Your task to perform on an android device: Open notification settings Image 0: 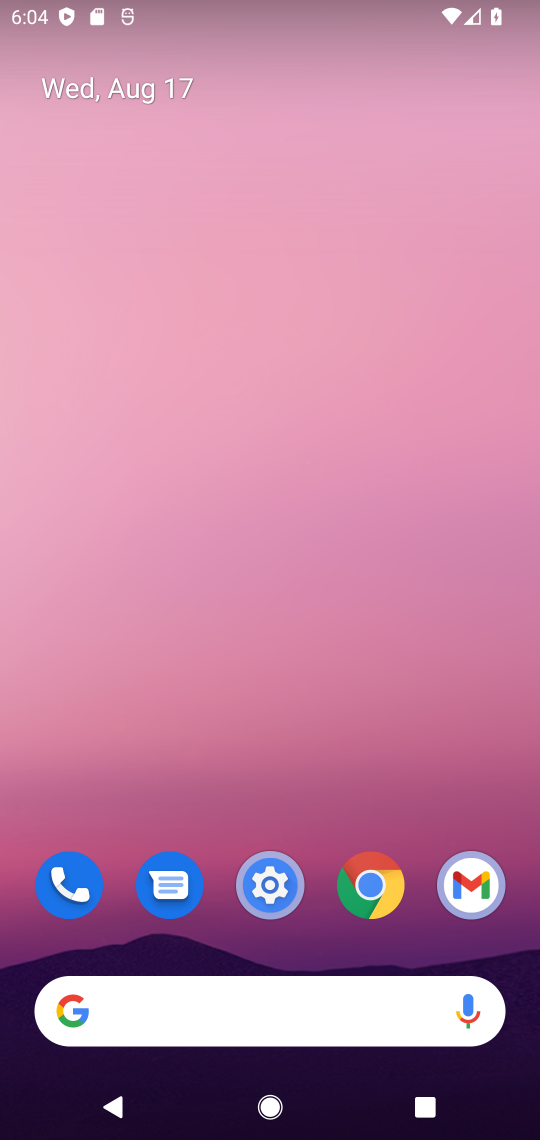
Step 0: drag from (198, 406) to (243, 4)
Your task to perform on an android device: Open notification settings Image 1: 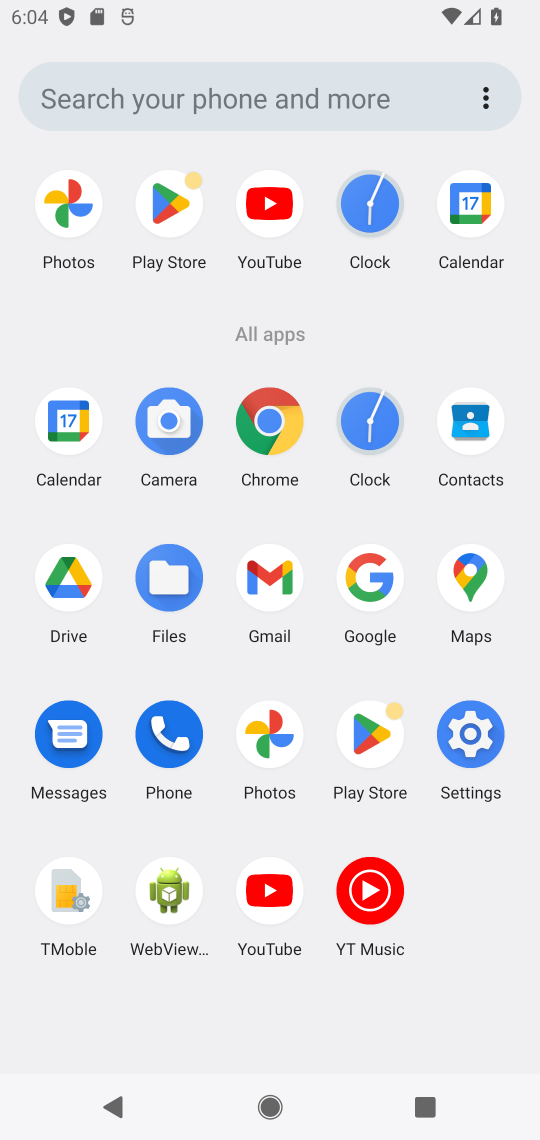
Step 1: click (462, 728)
Your task to perform on an android device: Open notification settings Image 2: 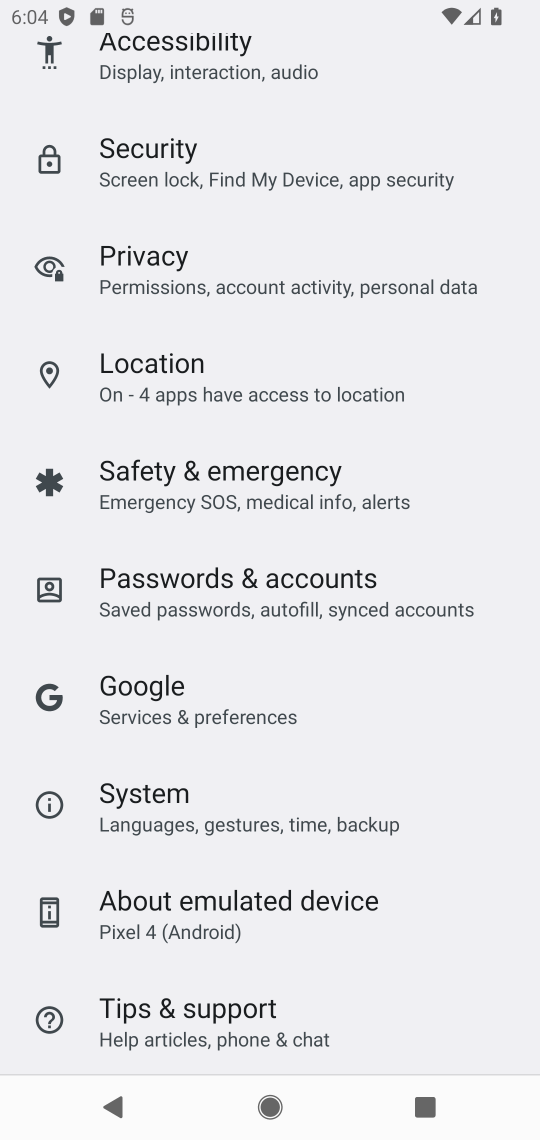
Step 2: drag from (265, 217) to (228, 1027)
Your task to perform on an android device: Open notification settings Image 3: 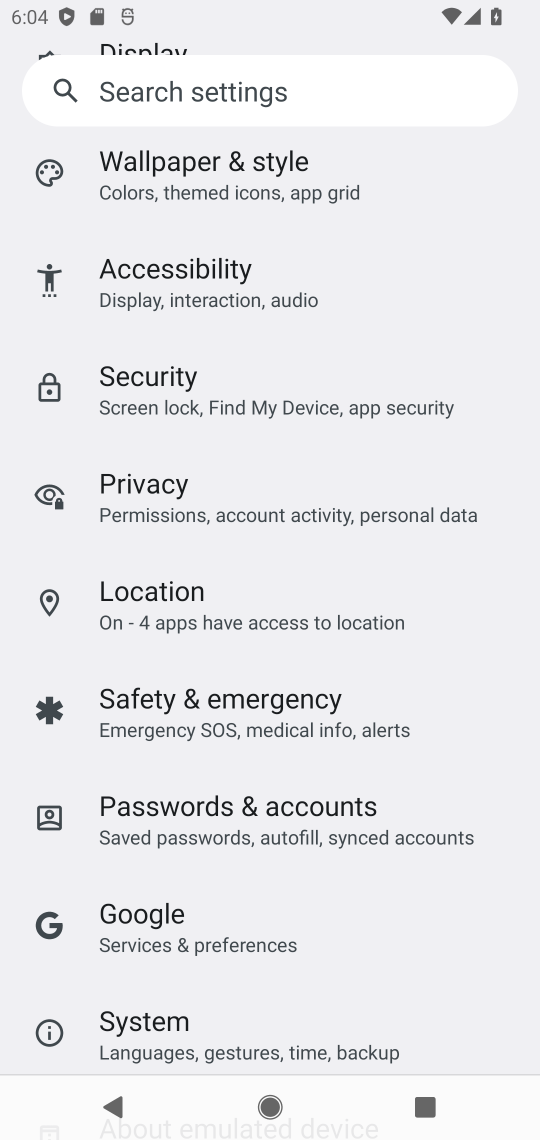
Step 3: drag from (274, 921) to (299, 1017)
Your task to perform on an android device: Open notification settings Image 4: 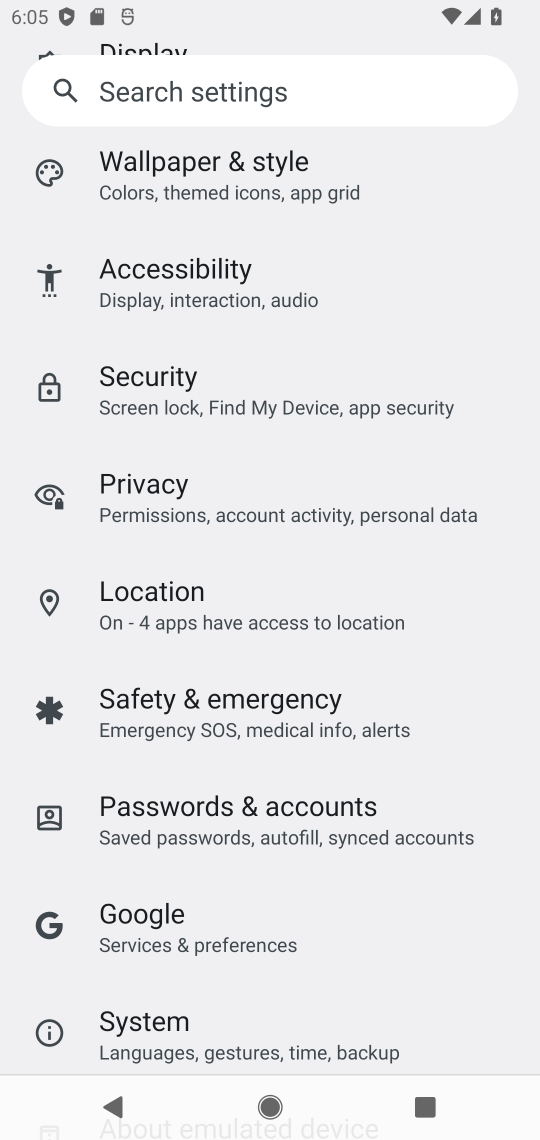
Step 4: drag from (438, 290) to (428, 1060)
Your task to perform on an android device: Open notification settings Image 5: 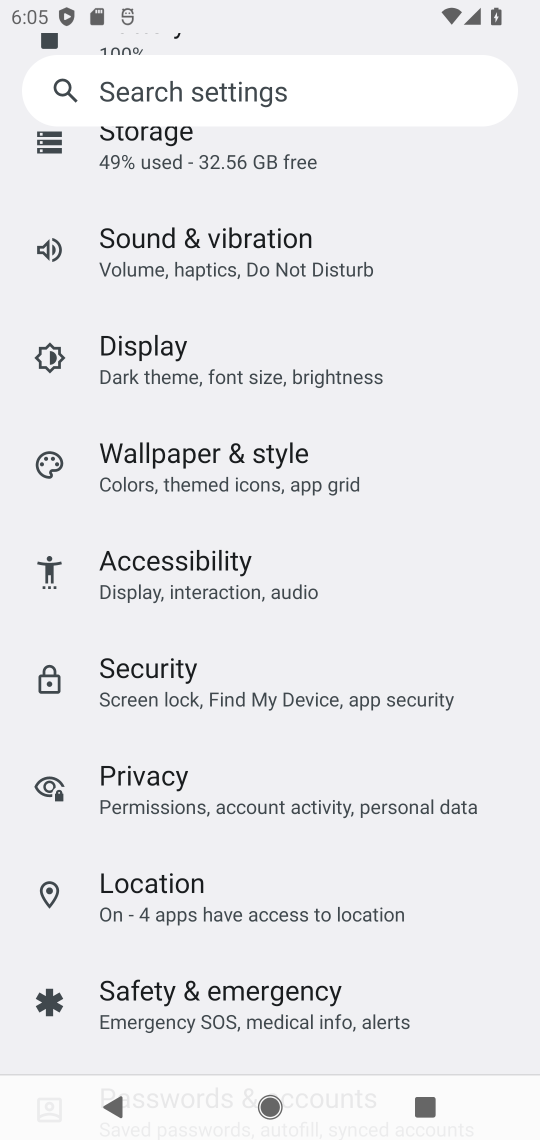
Step 5: drag from (265, 324) to (284, 1005)
Your task to perform on an android device: Open notification settings Image 6: 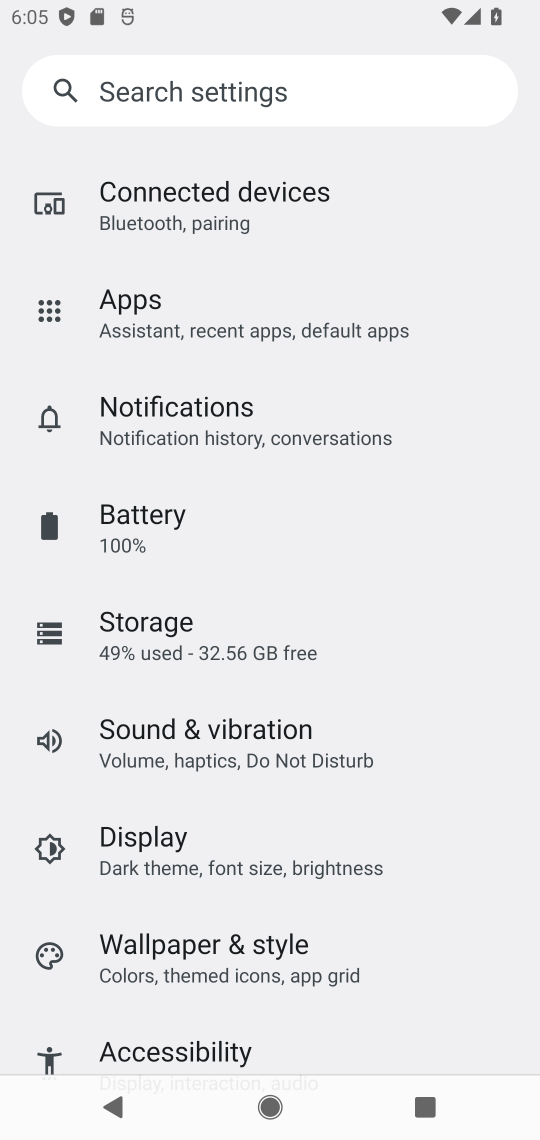
Step 6: click (218, 409)
Your task to perform on an android device: Open notification settings Image 7: 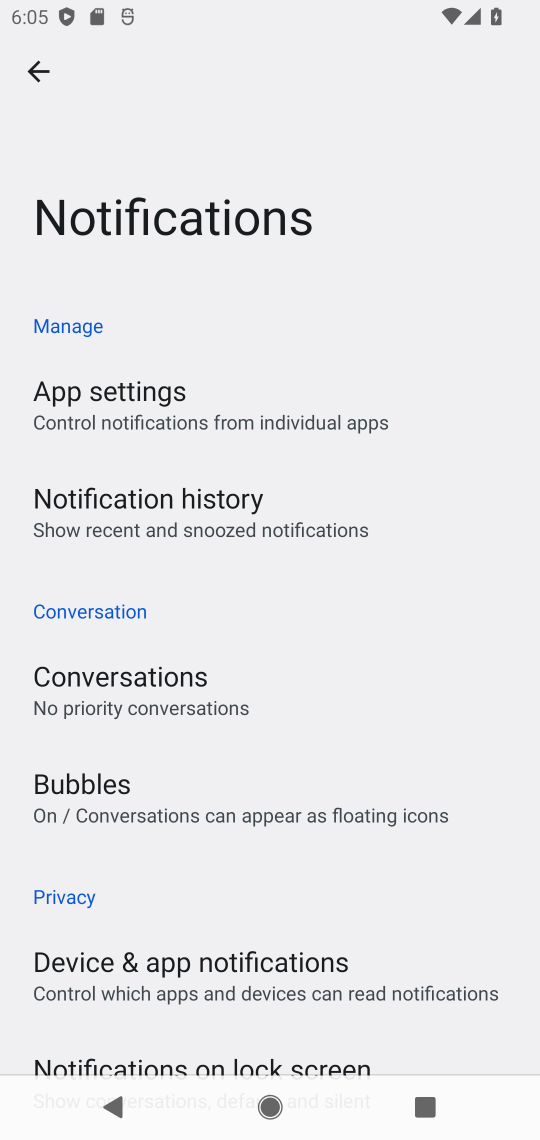
Step 7: task complete